Your task to perform on an android device: change notifications settings Image 0: 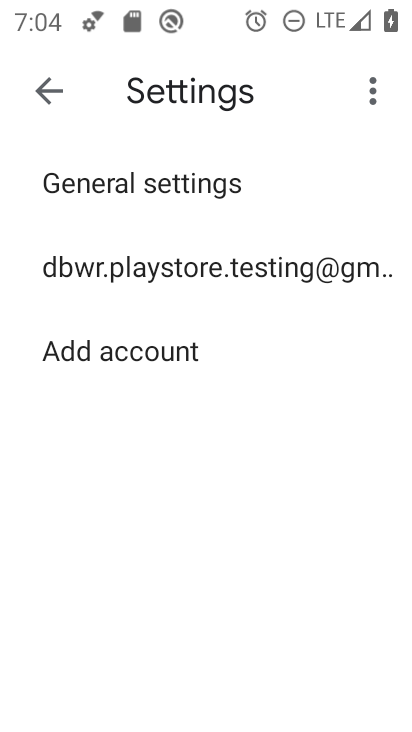
Step 0: press back button
Your task to perform on an android device: change notifications settings Image 1: 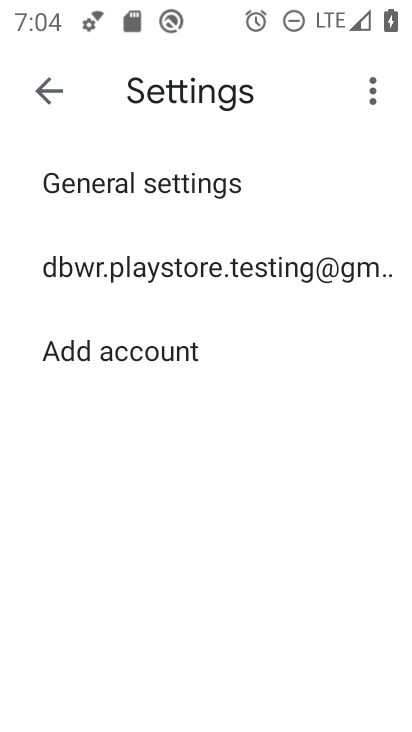
Step 1: press home button
Your task to perform on an android device: change notifications settings Image 2: 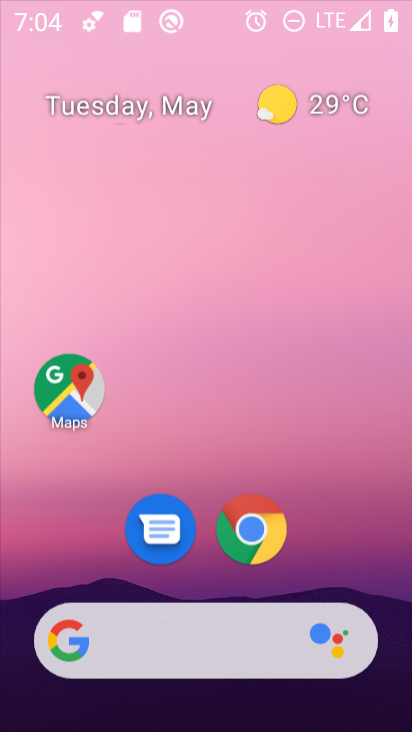
Step 2: press home button
Your task to perform on an android device: change notifications settings Image 3: 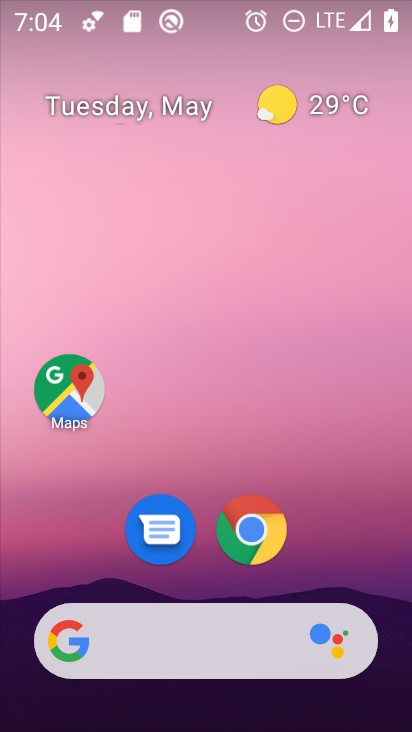
Step 3: drag from (396, 612) to (294, 57)
Your task to perform on an android device: change notifications settings Image 4: 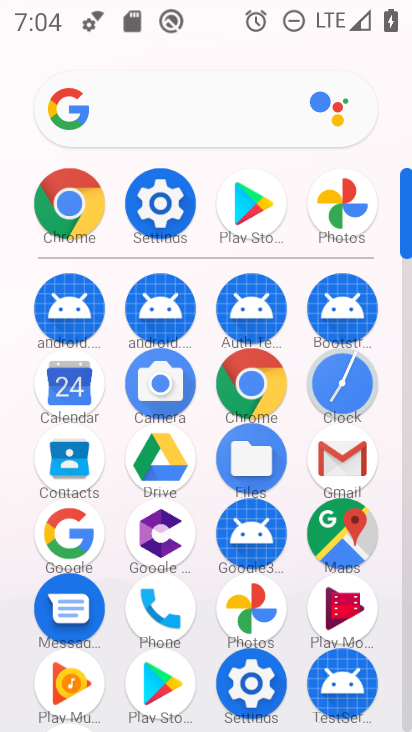
Step 4: click (163, 190)
Your task to perform on an android device: change notifications settings Image 5: 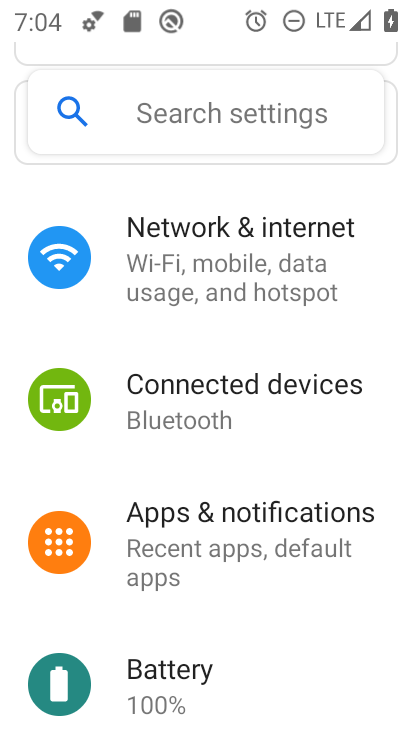
Step 5: click (276, 548)
Your task to perform on an android device: change notifications settings Image 6: 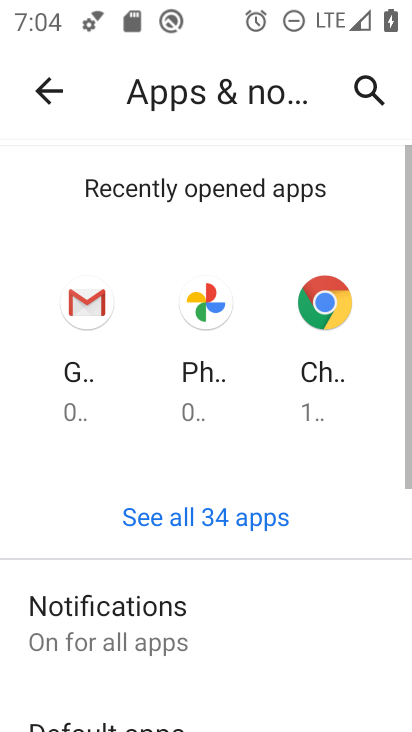
Step 6: click (198, 628)
Your task to perform on an android device: change notifications settings Image 7: 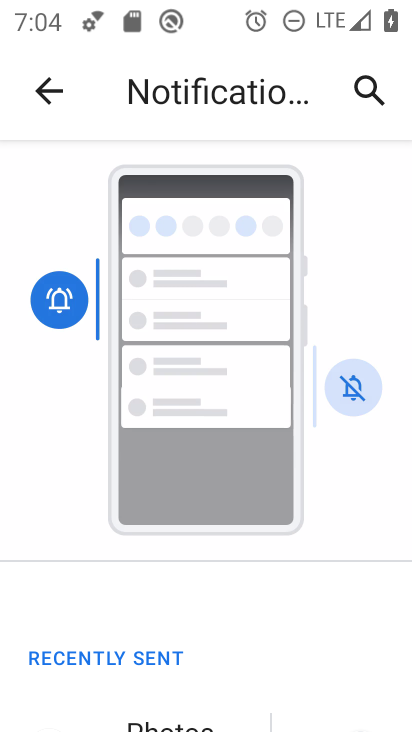
Step 7: task complete